Your task to perform on an android device: change the clock display to show seconds Image 0: 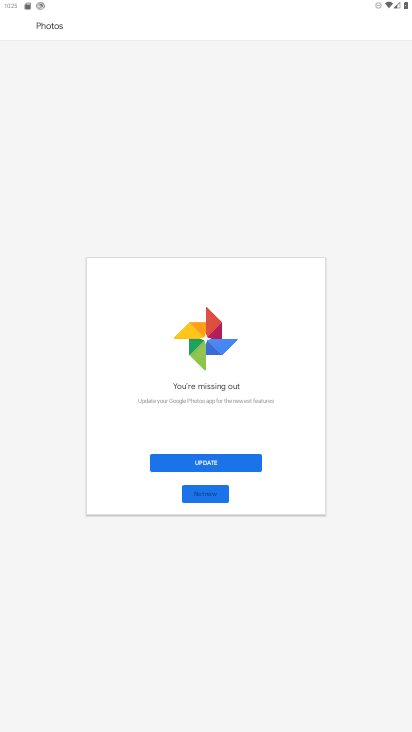
Step 0: press home button
Your task to perform on an android device: change the clock display to show seconds Image 1: 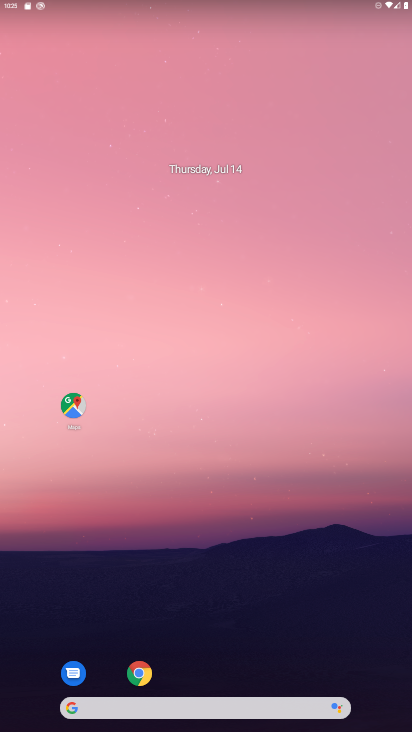
Step 1: drag from (205, 529) to (152, 68)
Your task to perform on an android device: change the clock display to show seconds Image 2: 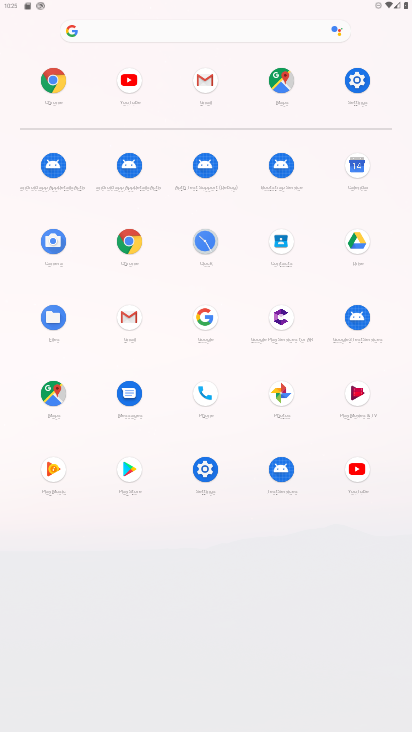
Step 2: click (353, 74)
Your task to perform on an android device: change the clock display to show seconds Image 3: 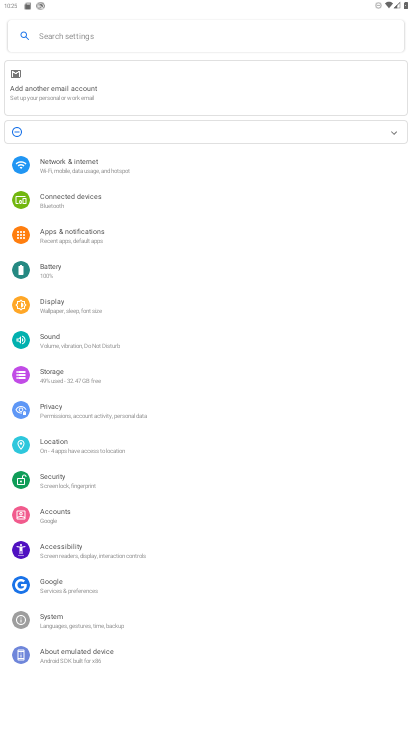
Step 3: drag from (177, 227) to (121, 368)
Your task to perform on an android device: change the clock display to show seconds Image 4: 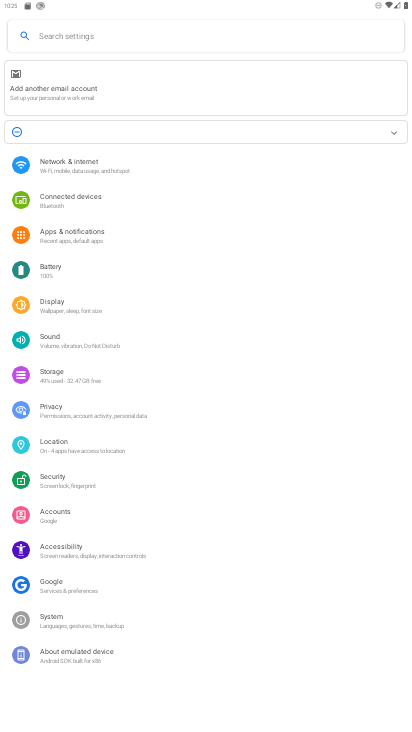
Step 4: press home button
Your task to perform on an android device: change the clock display to show seconds Image 5: 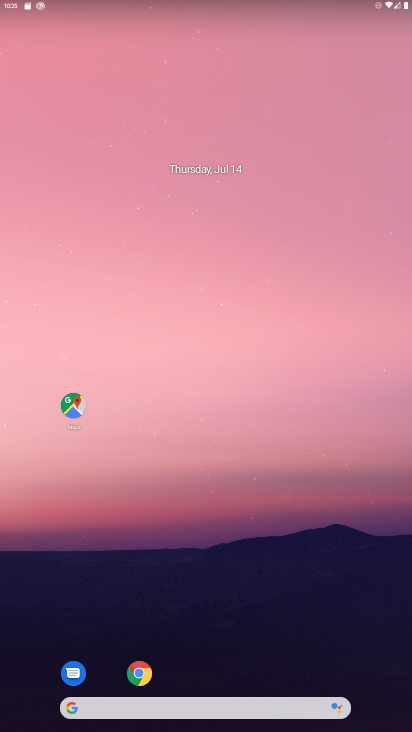
Step 5: drag from (249, 364) to (285, 134)
Your task to perform on an android device: change the clock display to show seconds Image 6: 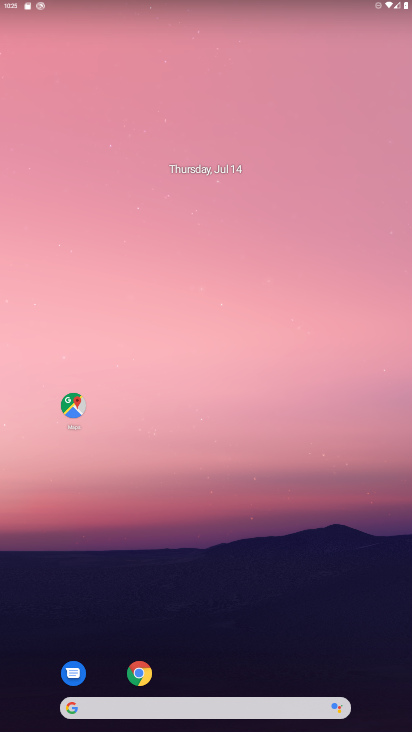
Step 6: drag from (254, 625) to (229, 50)
Your task to perform on an android device: change the clock display to show seconds Image 7: 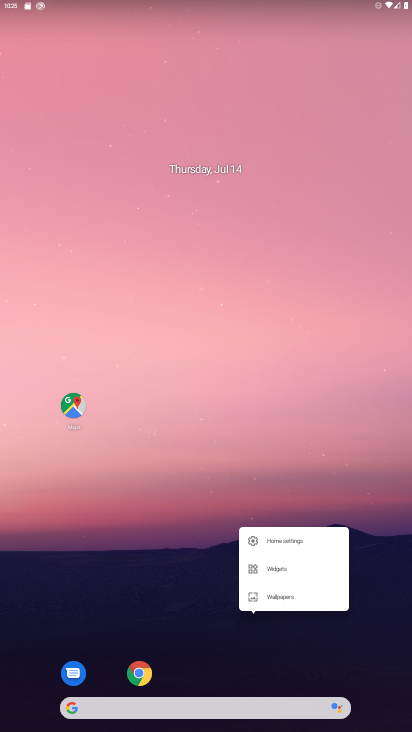
Step 7: click (161, 514)
Your task to perform on an android device: change the clock display to show seconds Image 8: 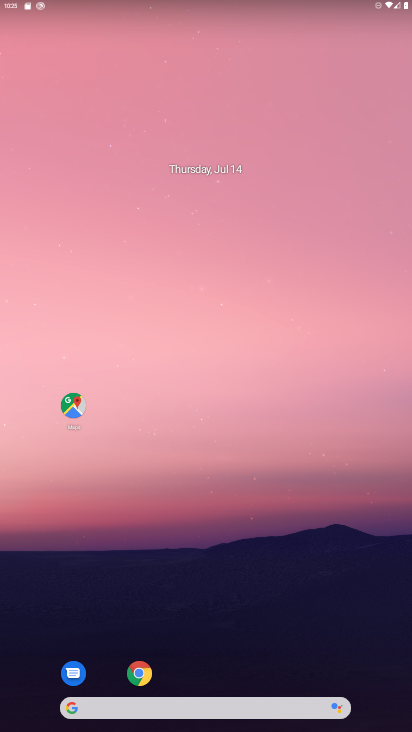
Step 8: drag from (256, 581) to (202, 122)
Your task to perform on an android device: change the clock display to show seconds Image 9: 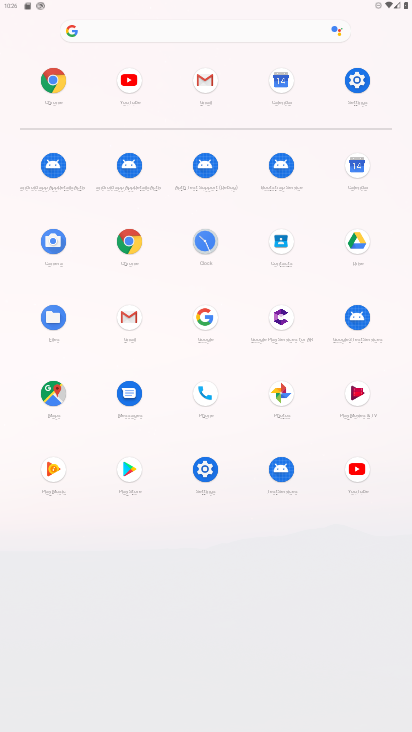
Step 9: click (201, 236)
Your task to perform on an android device: change the clock display to show seconds Image 10: 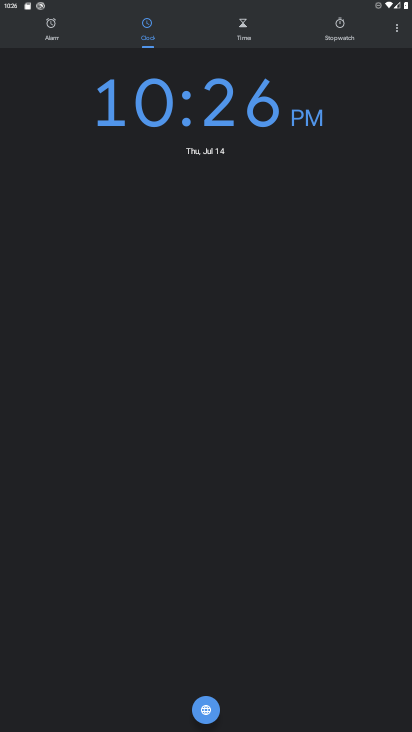
Step 10: click (399, 33)
Your task to perform on an android device: change the clock display to show seconds Image 11: 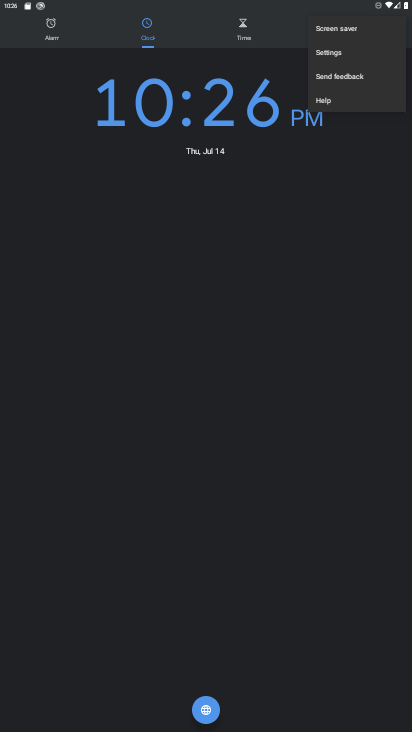
Step 11: click (328, 49)
Your task to perform on an android device: change the clock display to show seconds Image 12: 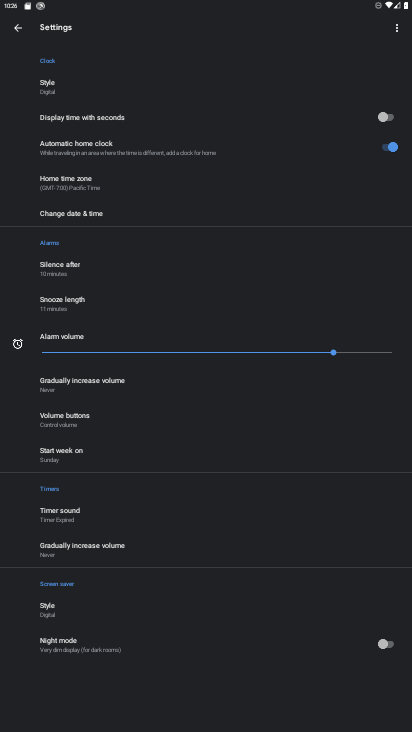
Step 12: click (386, 118)
Your task to perform on an android device: change the clock display to show seconds Image 13: 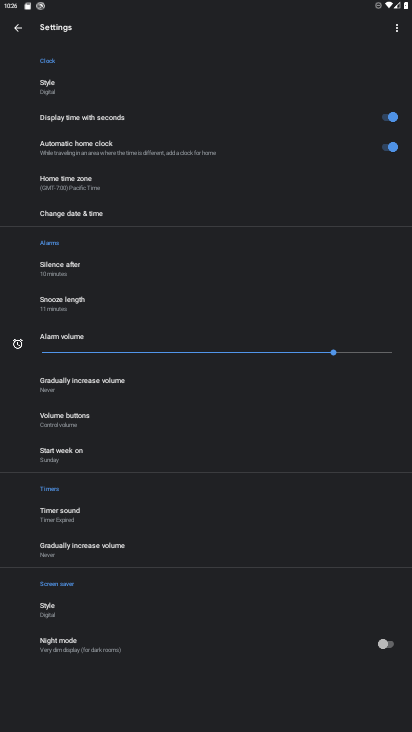
Step 13: task complete